Your task to perform on an android device: stop showing notifications on the lock screen Image 0: 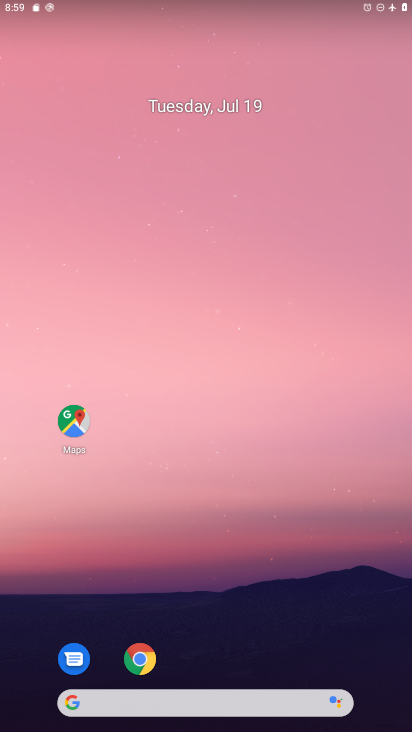
Step 0: drag from (310, 640) to (283, 168)
Your task to perform on an android device: stop showing notifications on the lock screen Image 1: 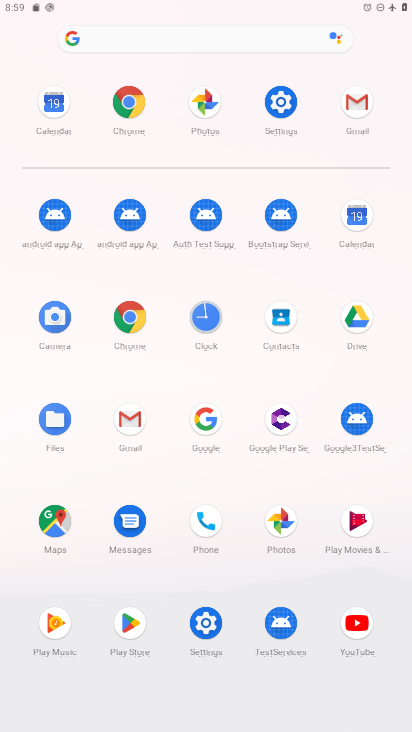
Step 1: click (277, 94)
Your task to perform on an android device: stop showing notifications on the lock screen Image 2: 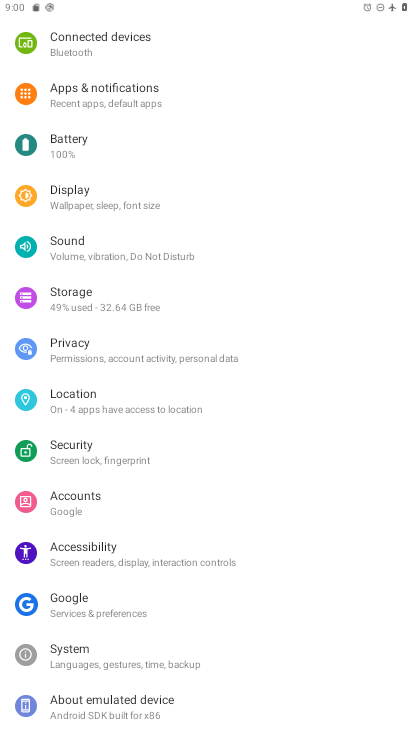
Step 2: click (99, 91)
Your task to perform on an android device: stop showing notifications on the lock screen Image 3: 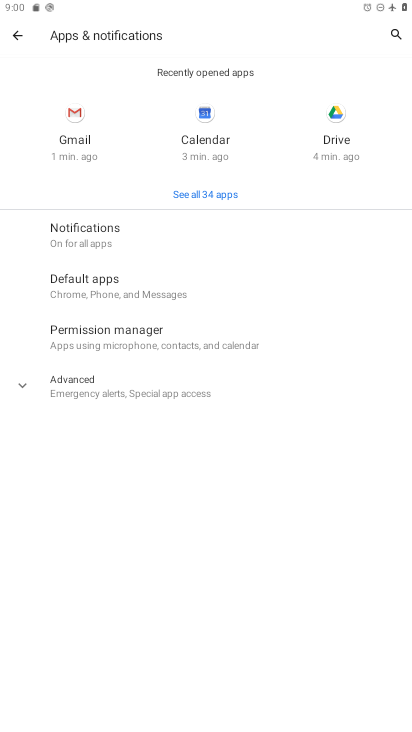
Step 3: click (115, 241)
Your task to perform on an android device: stop showing notifications on the lock screen Image 4: 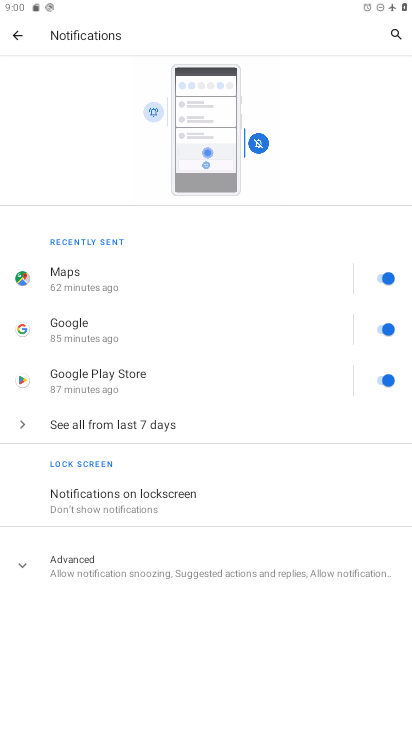
Step 4: click (174, 494)
Your task to perform on an android device: stop showing notifications on the lock screen Image 5: 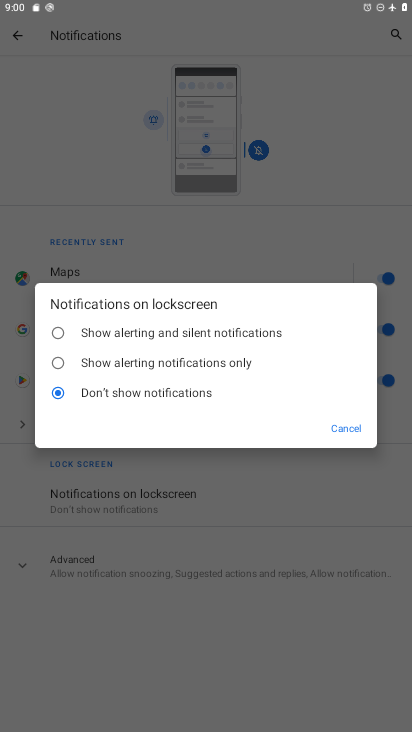
Step 5: task complete